Your task to perform on an android device: set the timer Image 0: 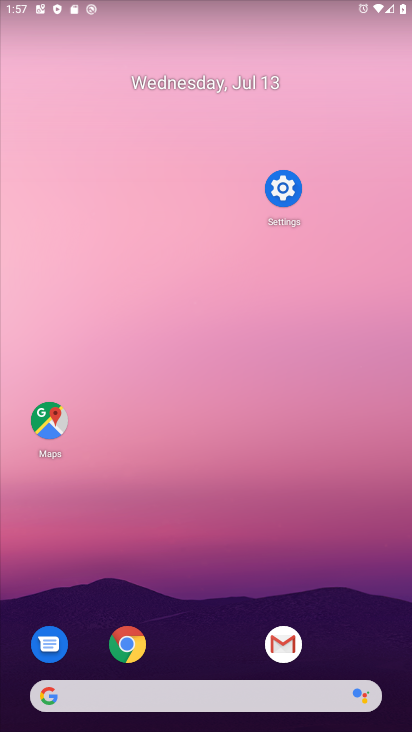
Step 0: drag from (244, 686) to (256, 164)
Your task to perform on an android device: set the timer Image 1: 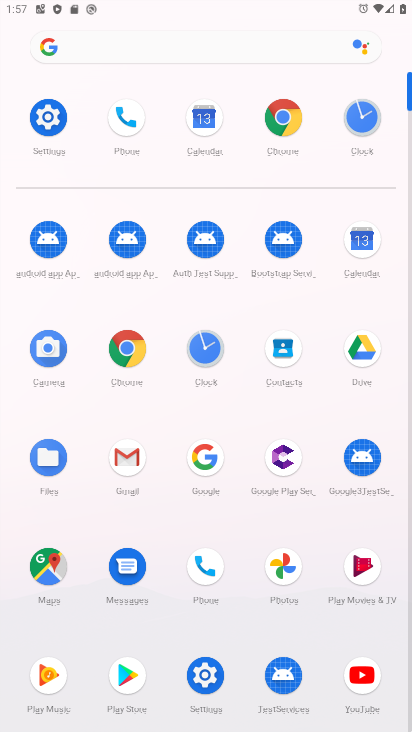
Step 1: click (207, 339)
Your task to perform on an android device: set the timer Image 2: 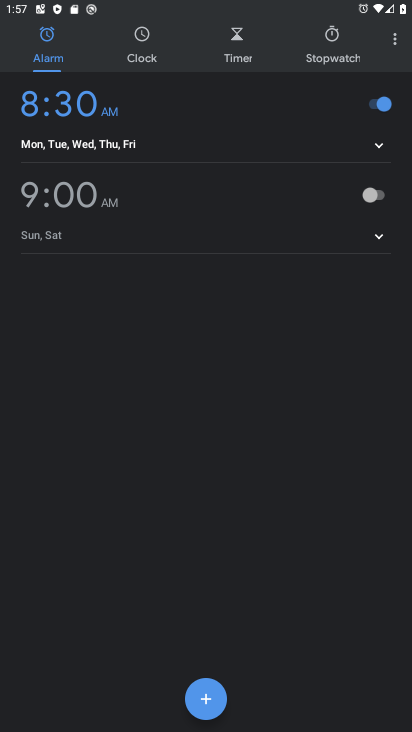
Step 2: click (238, 36)
Your task to perform on an android device: set the timer Image 3: 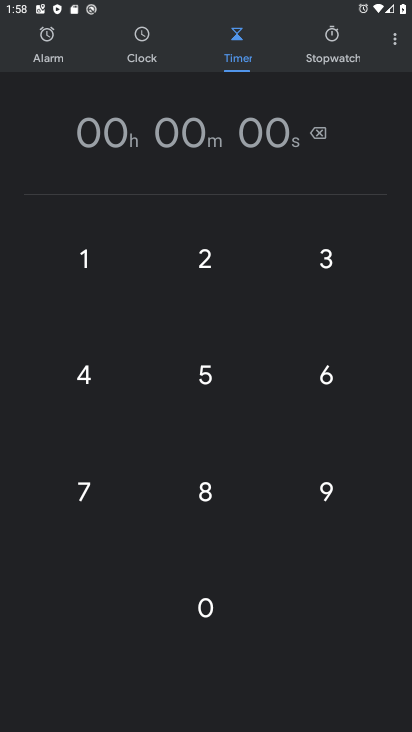
Step 3: task complete